Your task to perform on an android device: turn vacation reply on in the gmail app Image 0: 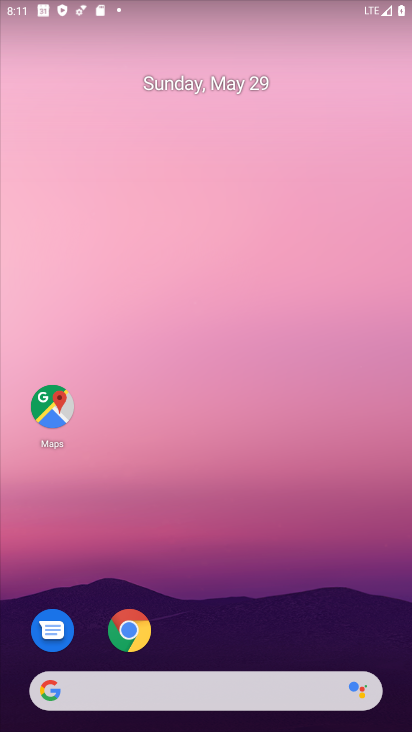
Step 0: drag from (173, 649) to (276, 27)
Your task to perform on an android device: turn vacation reply on in the gmail app Image 1: 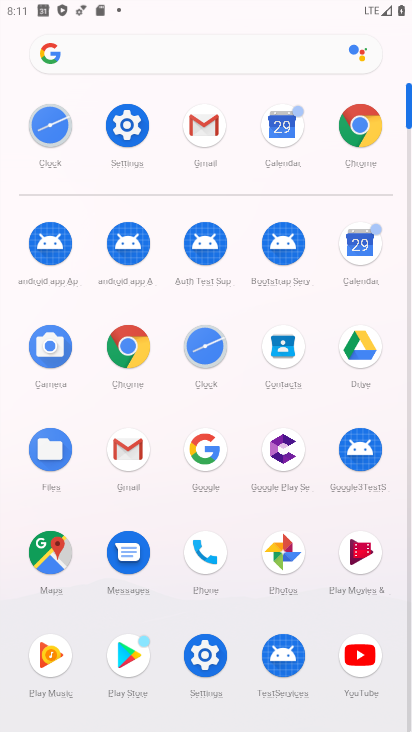
Step 1: click (122, 448)
Your task to perform on an android device: turn vacation reply on in the gmail app Image 2: 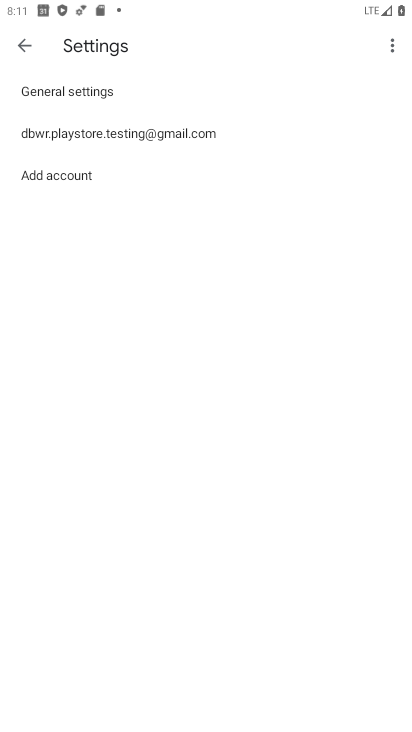
Step 2: click (95, 147)
Your task to perform on an android device: turn vacation reply on in the gmail app Image 3: 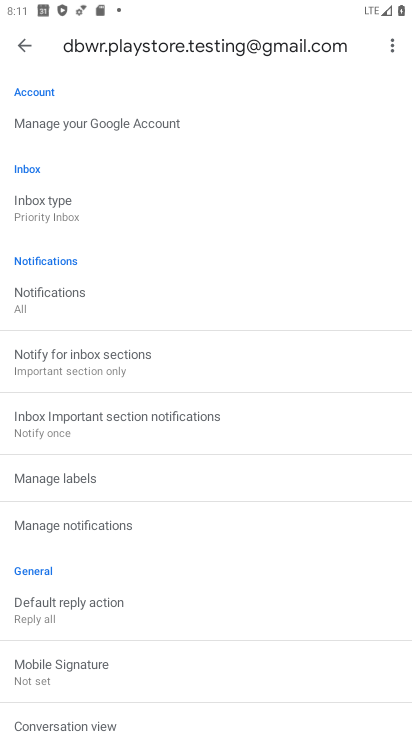
Step 3: drag from (213, 549) to (155, 134)
Your task to perform on an android device: turn vacation reply on in the gmail app Image 4: 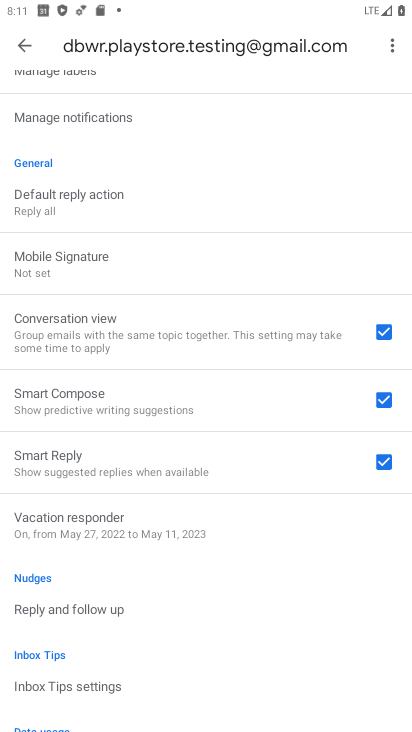
Step 4: click (84, 550)
Your task to perform on an android device: turn vacation reply on in the gmail app Image 5: 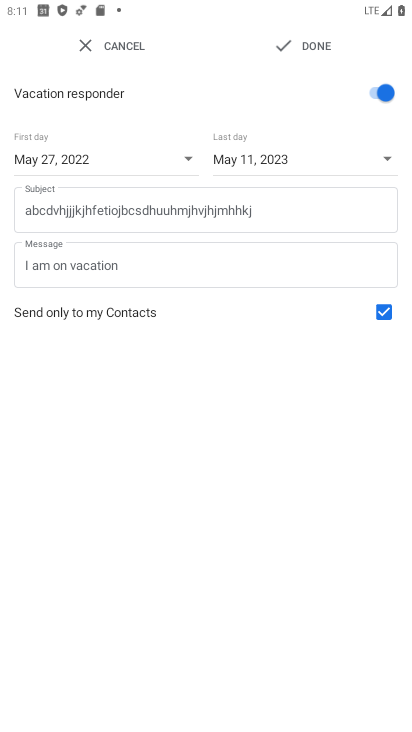
Step 5: click (328, 50)
Your task to perform on an android device: turn vacation reply on in the gmail app Image 6: 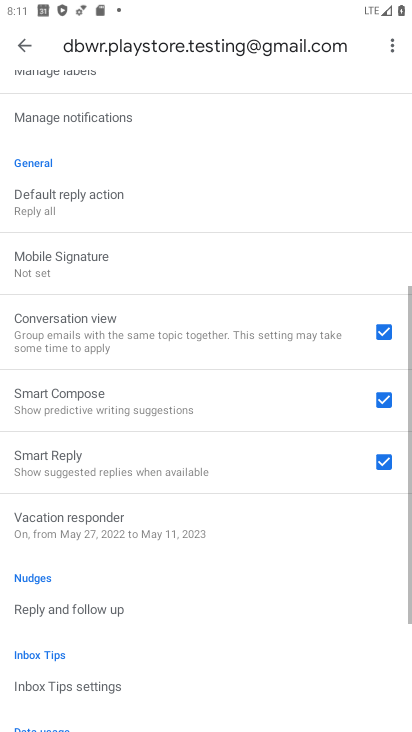
Step 6: task complete